Your task to perform on an android device: Open wifi settings Image 0: 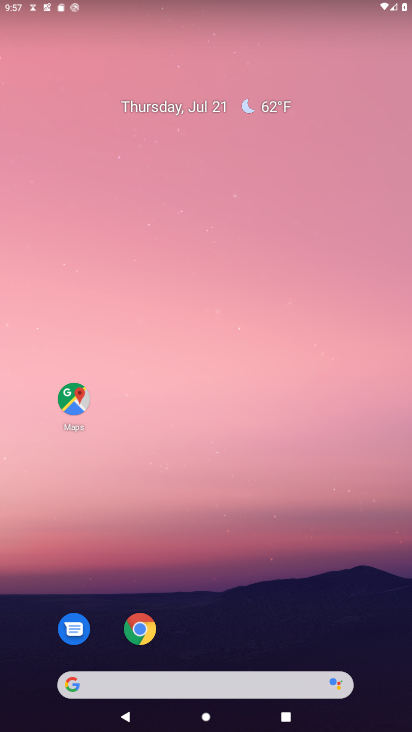
Step 0: drag from (219, 601) to (231, 91)
Your task to perform on an android device: Open wifi settings Image 1: 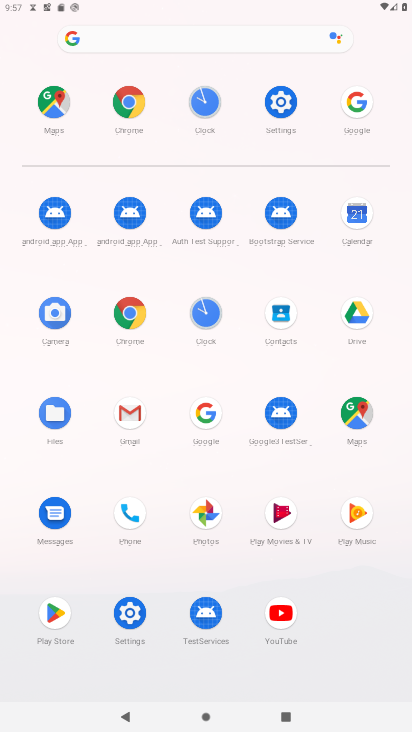
Step 1: click (293, 103)
Your task to perform on an android device: Open wifi settings Image 2: 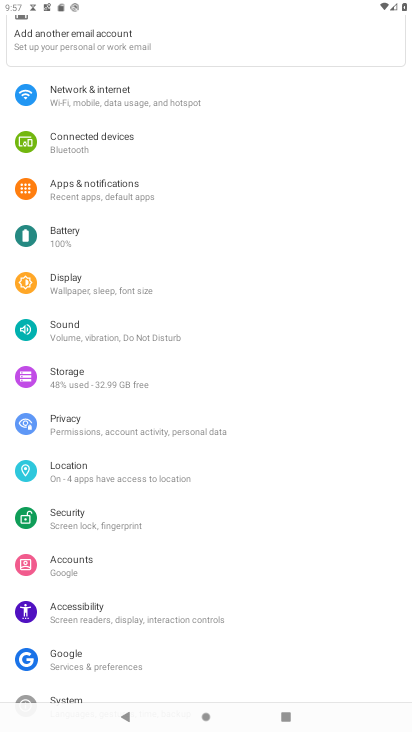
Step 2: click (103, 93)
Your task to perform on an android device: Open wifi settings Image 3: 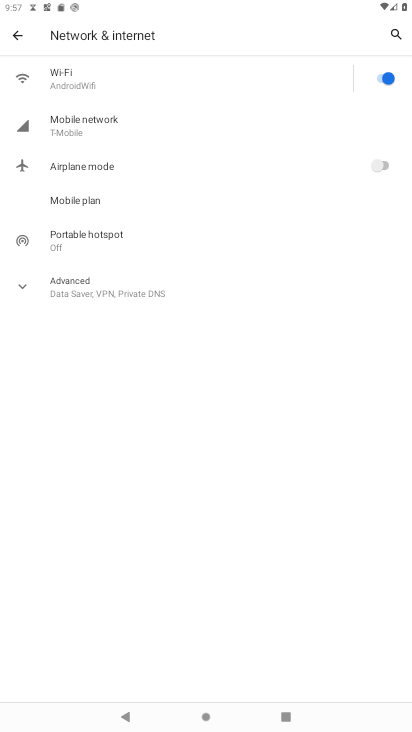
Step 3: click (82, 80)
Your task to perform on an android device: Open wifi settings Image 4: 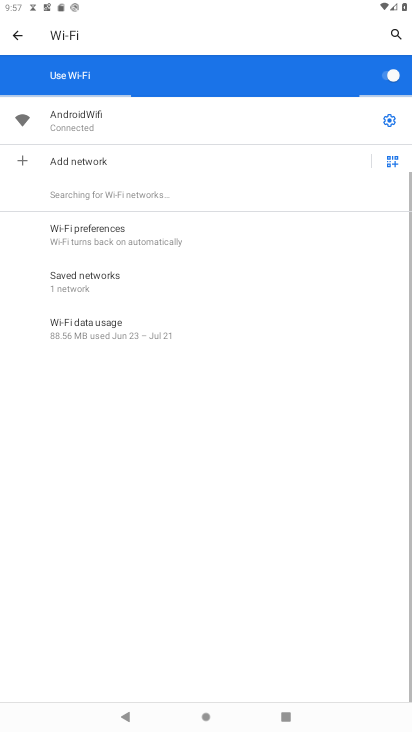
Step 4: task complete